Your task to perform on an android device: Open Google Chrome Image 0: 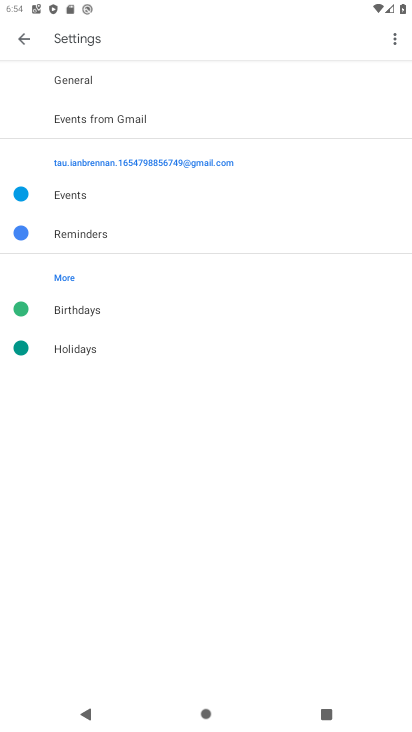
Step 0: press home button
Your task to perform on an android device: Open Google Chrome Image 1: 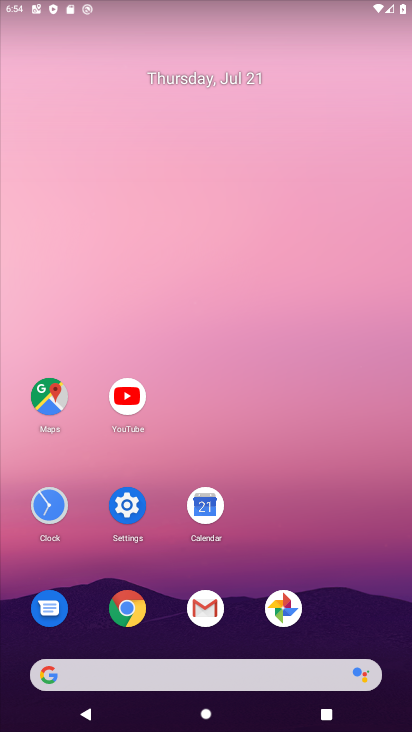
Step 1: click (127, 608)
Your task to perform on an android device: Open Google Chrome Image 2: 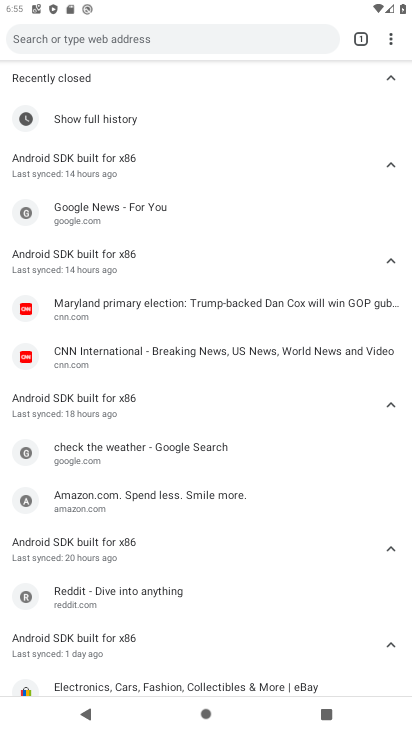
Step 2: task complete